Your task to perform on an android device: find snoozed emails in the gmail app Image 0: 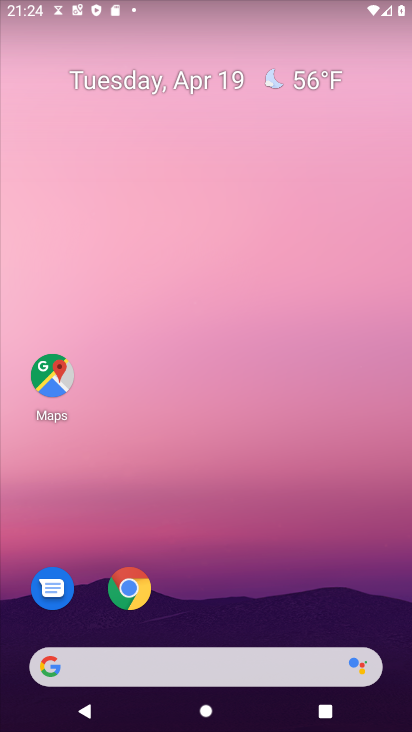
Step 0: drag from (236, 600) to (322, 35)
Your task to perform on an android device: find snoozed emails in the gmail app Image 1: 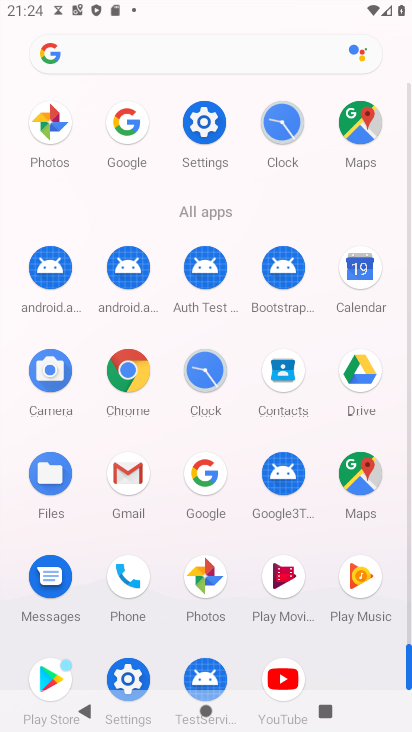
Step 1: click (127, 476)
Your task to perform on an android device: find snoozed emails in the gmail app Image 2: 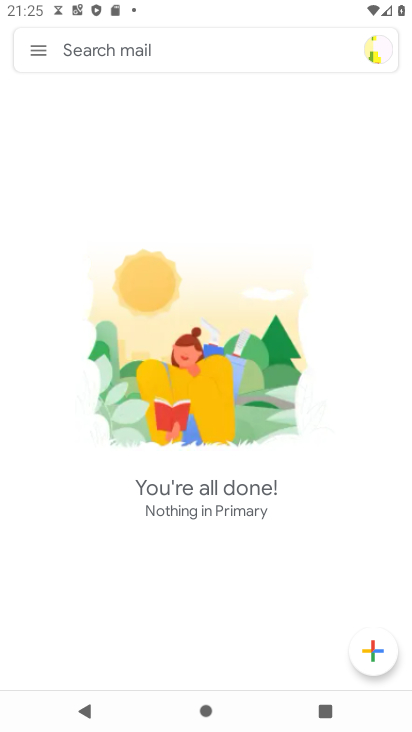
Step 2: click (37, 50)
Your task to perform on an android device: find snoozed emails in the gmail app Image 3: 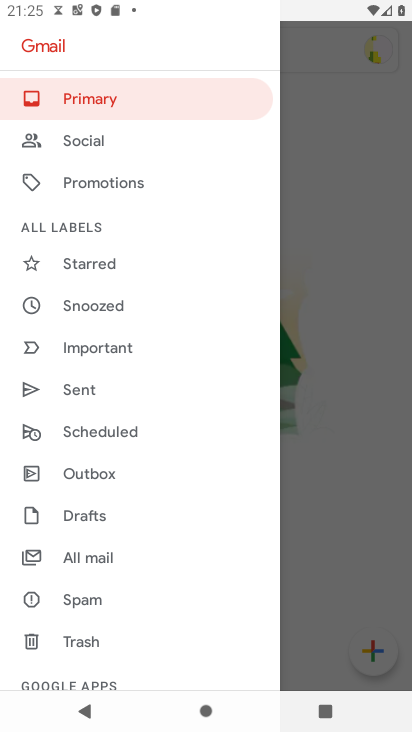
Step 3: drag from (107, 521) to (152, 390)
Your task to perform on an android device: find snoozed emails in the gmail app Image 4: 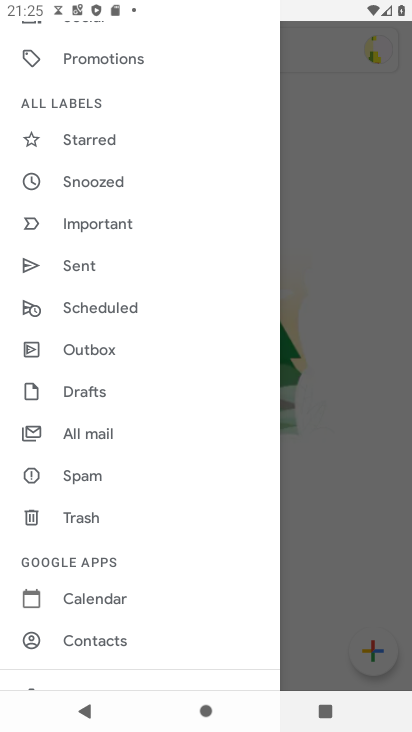
Step 4: drag from (110, 529) to (125, 428)
Your task to perform on an android device: find snoozed emails in the gmail app Image 5: 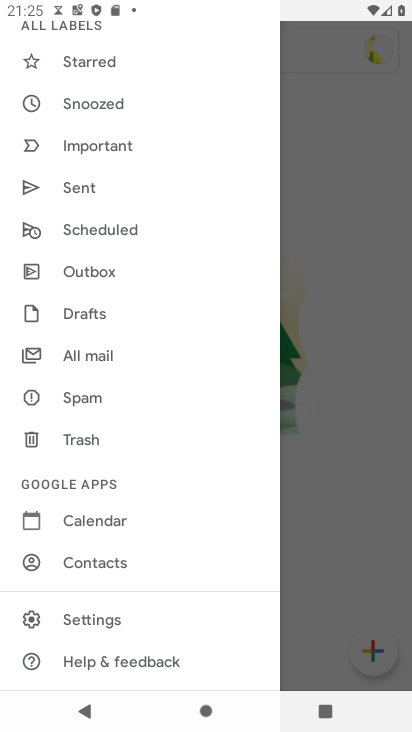
Step 5: click (108, 625)
Your task to perform on an android device: find snoozed emails in the gmail app Image 6: 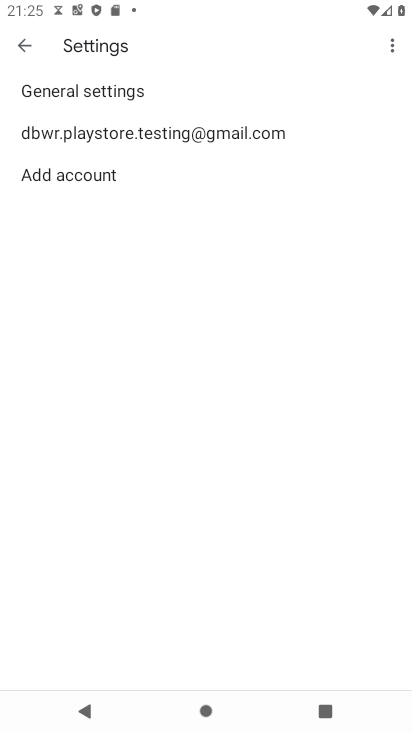
Step 6: press back button
Your task to perform on an android device: find snoozed emails in the gmail app Image 7: 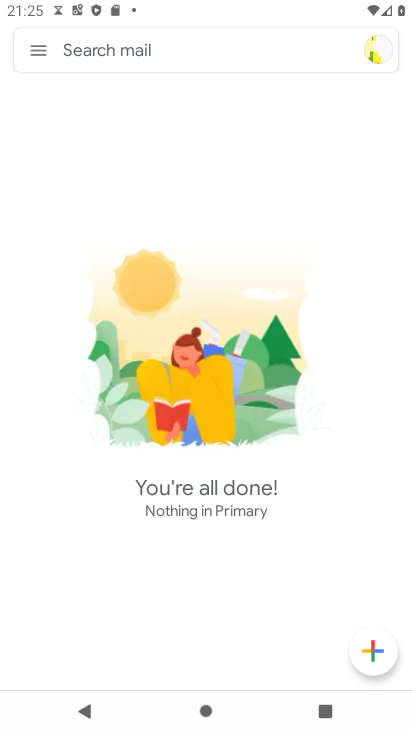
Step 7: click (40, 54)
Your task to perform on an android device: find snoozed emails in the gmail app Image 8: 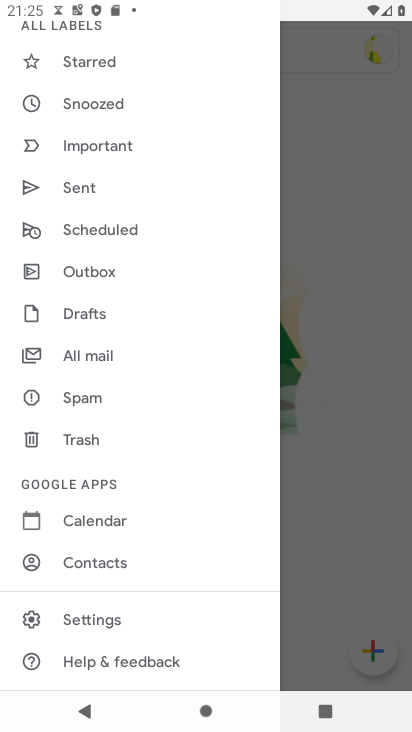
Step 8: drag from (129, 198) to (145, 311)
Your task to perform on an android device: find snoozed emails in the gmail app Image 9: 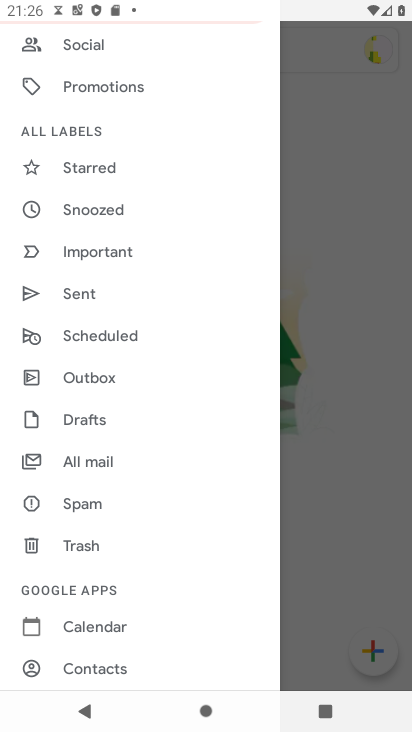
Step 9: click (120, 213)
Your task to perform on an android device: find snoozed emails in the gmail app Image 10: 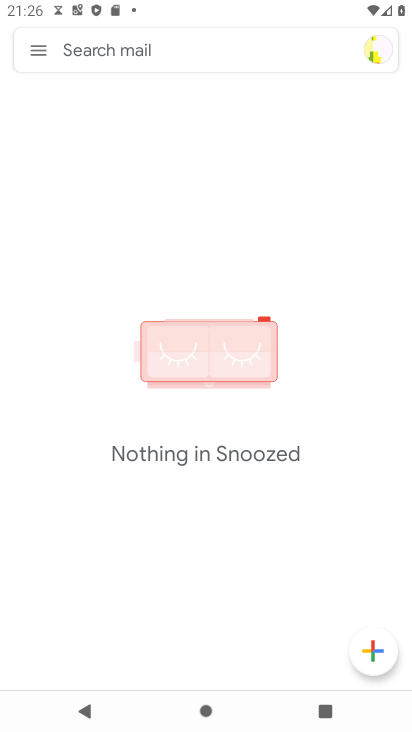
Step 10: task complete